Your task to perform on an android device: Open Android settings Image 0: 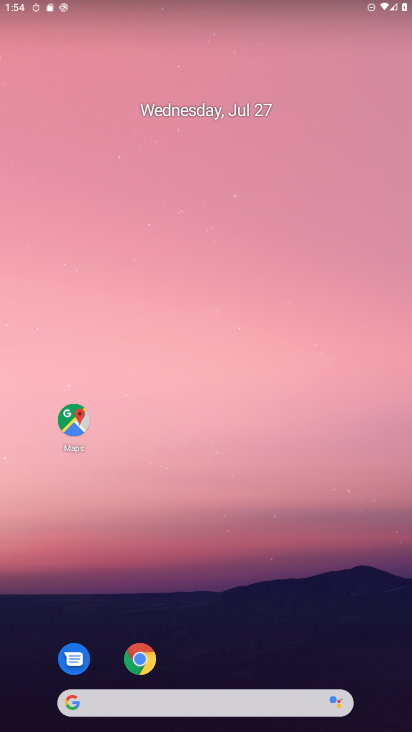
Step 0: drag from (292, 518) to (230, 52)
Your task to perform on an android device: Open Android settings Image 1: 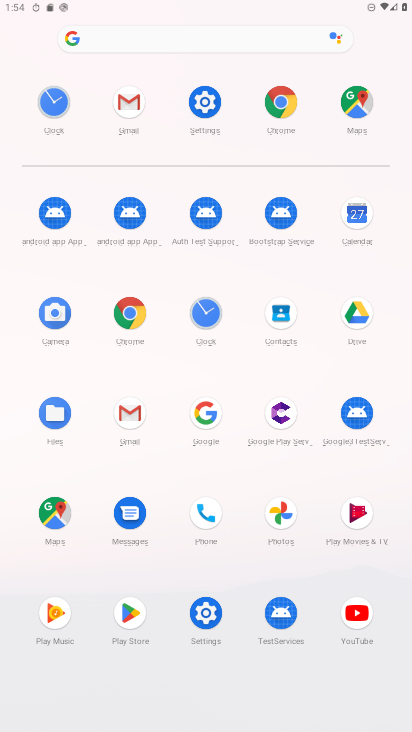
Step 1: click (209, 110)
Your task to perform on an android device: Open Android settings Image 2: 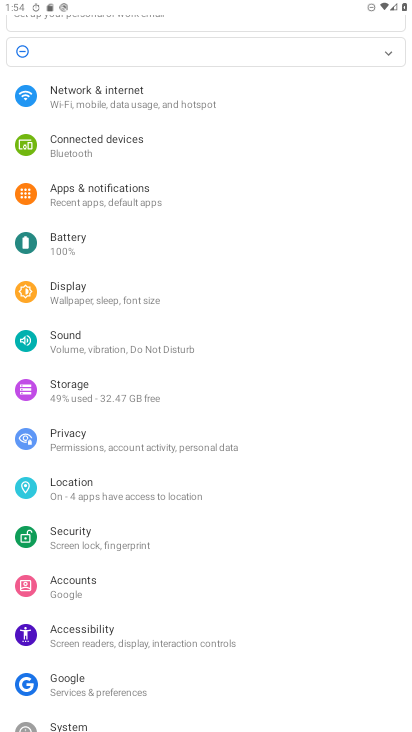
Step 2: task complete